Your task to perform on an android device: turn off location Image 0: 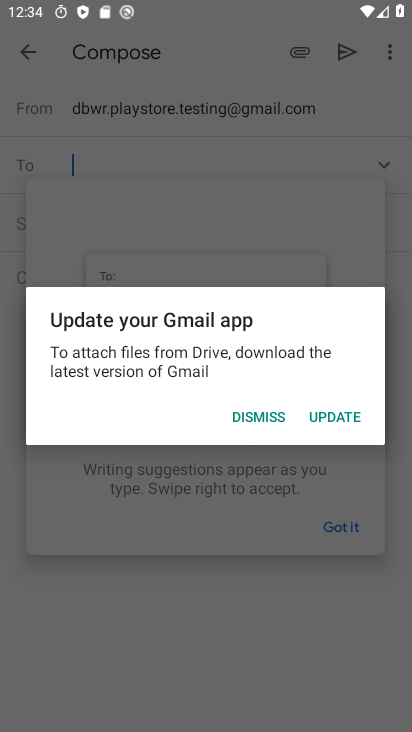
Step 0: press home button
Your task to perform on an android device: turn off location Image 1: 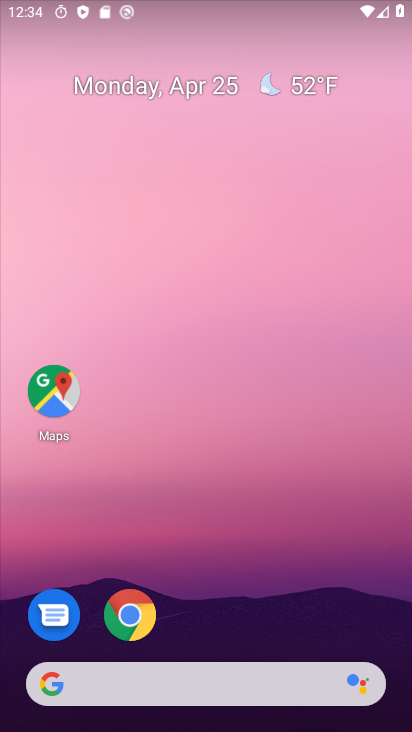
Step 1: drag from (222, 616) to (255, 7)
Your task to perform on an android device: turn off location Image 2: 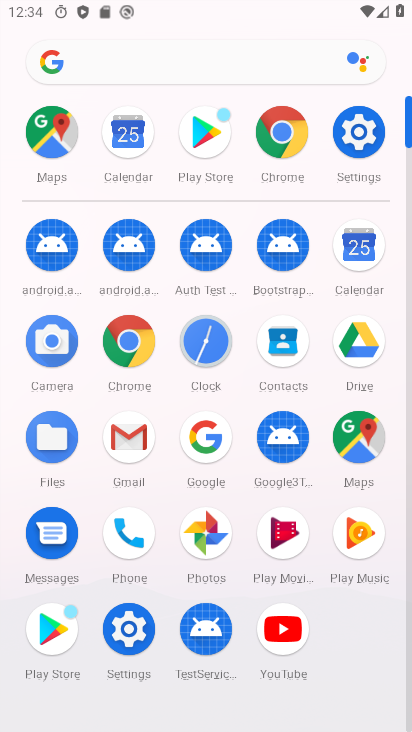
Step 2: click (355, 152)
Your task to perform on an android device: turn off location Image 3: 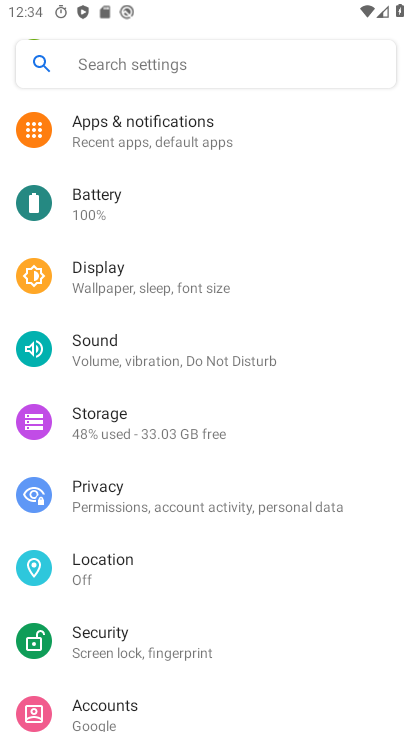
Step 3: click (135, 564)
Your task to perform on an android device: turn off location Image 4: 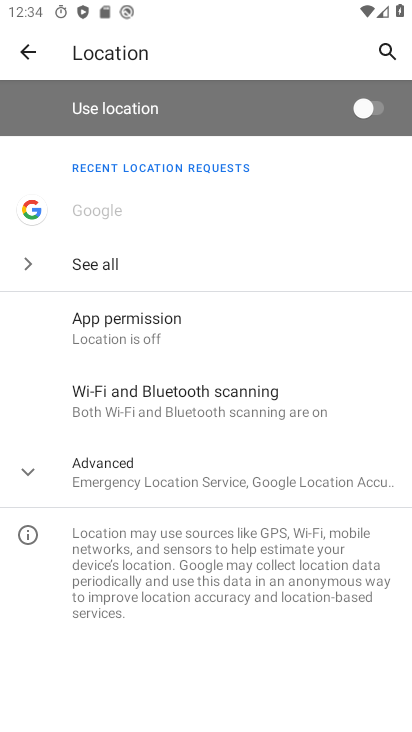
Step 4: task complete